Your task to perform on an android device: turn on data saver in the chrome app Image 0: 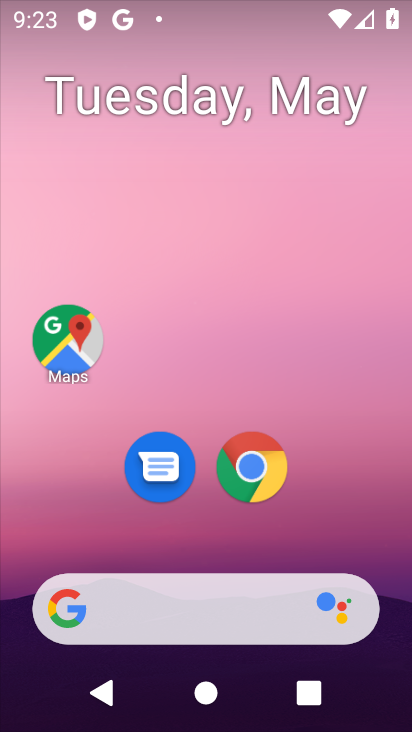
Step 0: drag from (342, 528) to (250, 34)
Your task to perform on an android device: turn on data saver in the chrome app Image 1: 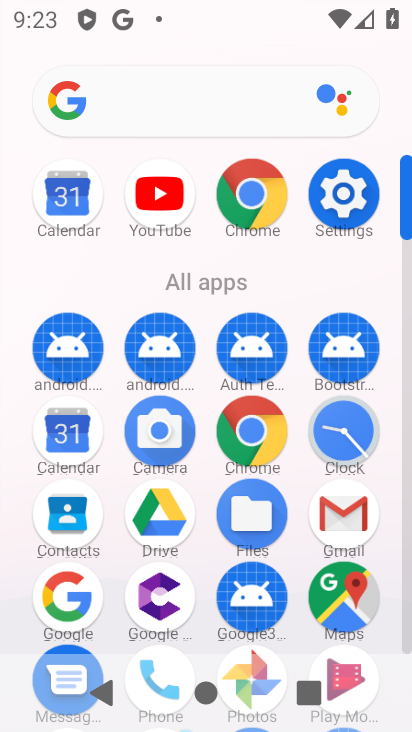
Step 1: drag from (2, 557) to (26, 163)
Your task to perform on an android device: turn on data saver in the chrome app Image 2: 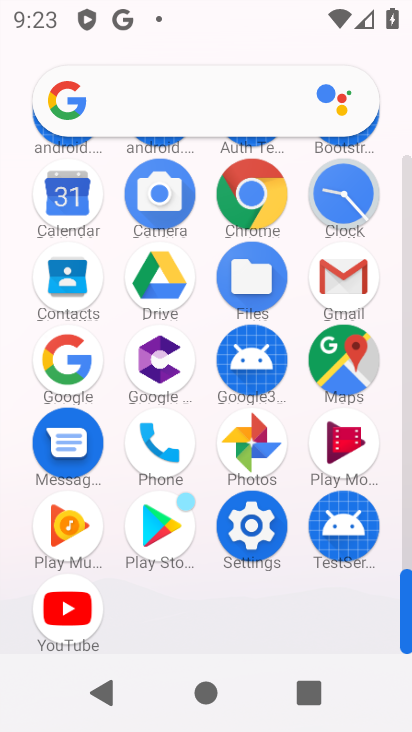
Step 2: click (246, 189)
Your task to perform on an android device: turn on data saver in the chrome app Image 3: 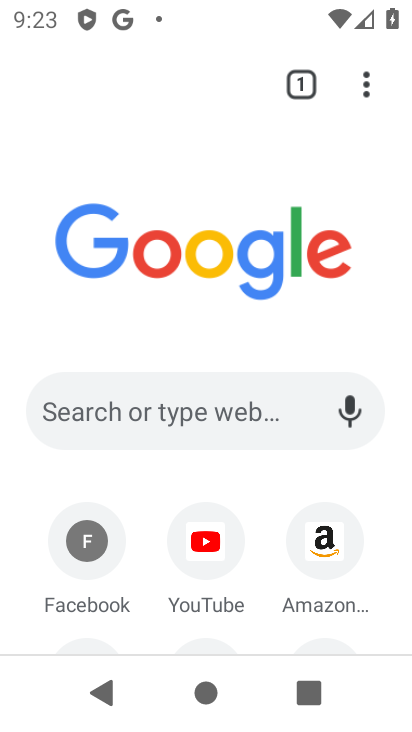
Step 3: drag from (362, 74) to (121, 502)
Your task to perform on an android device: turn on data saver in the chrome app Image 4: 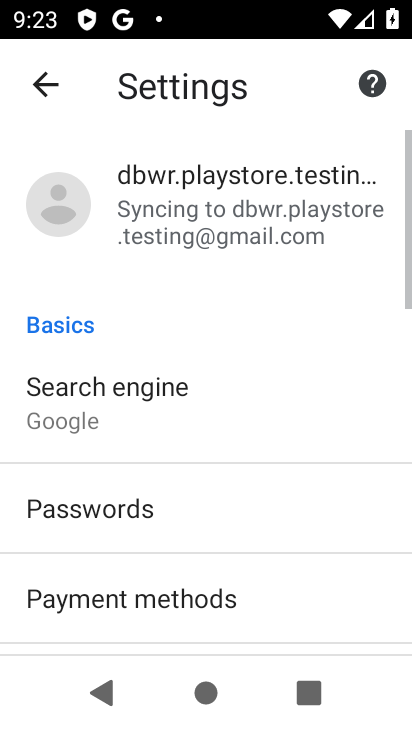
Step 4: drag from (243, 525) to (253, 107)
Your task to perform on an android device: turn on data saver in the chrome app Image 5: 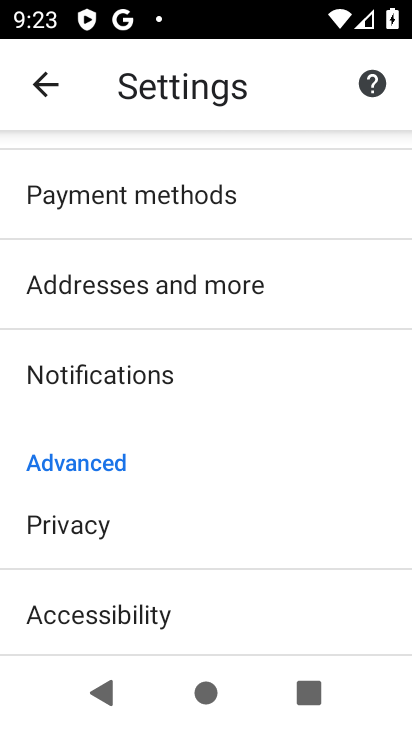
Step 5: drag from (287, 510) to (284, 140)
Your task to perform on an android device: turn on data saver in the chrome app Image 6: 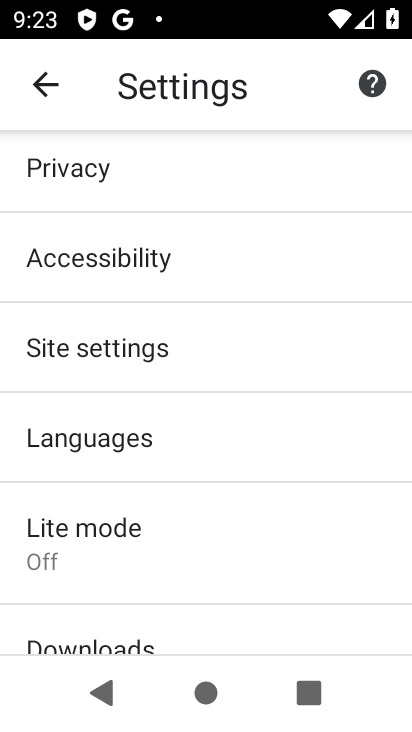
Step 6: drag from (249, 527) to (261, 206)
Your task to perform on an android device: turn on data saver in the chrome app Image 7: 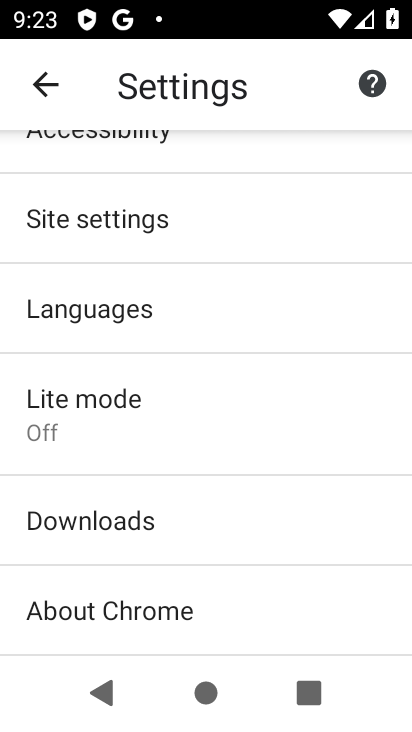
Step 7: click (141, 403)
Your task to perform on an android device: turn on data saver in the chrome app Image 8: 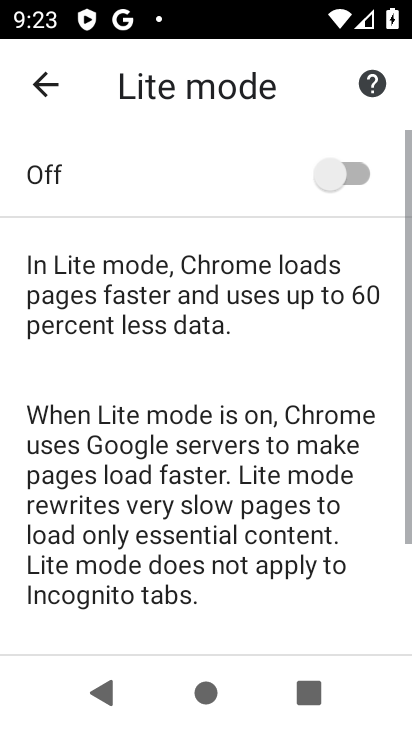
Step 8: click (330, 170)
Your task to perform on an android device: turn on data saver in the chrome app Image 9: 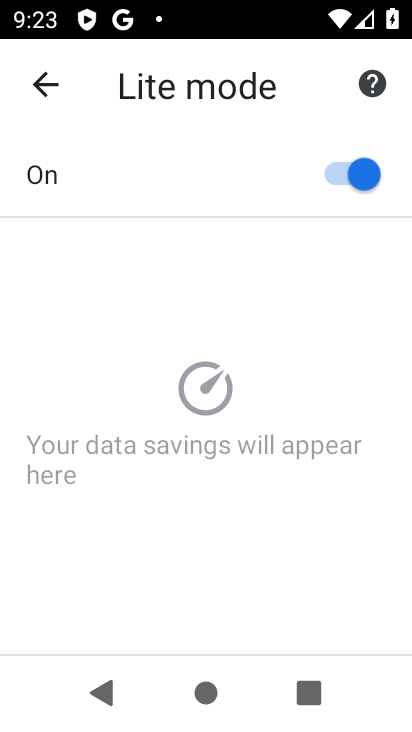
Step 9: task complete